Your task to perform on an android device: Open the phone app and click the voicemail tab. Image 0: 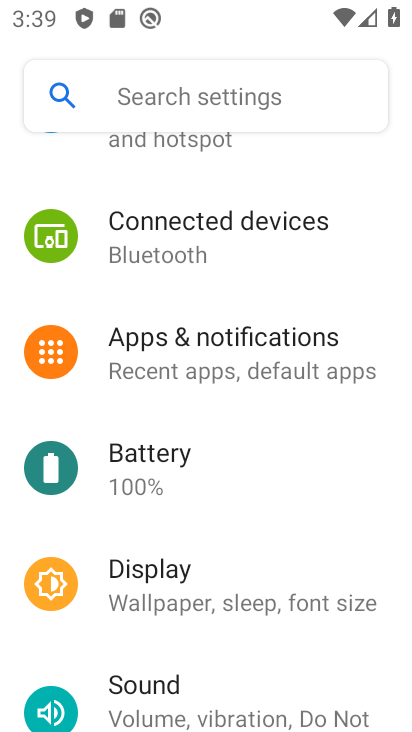
Step 0: press home button
Your task to perform on an android device: Open the phone app and click the voicemail tab. Image 1: 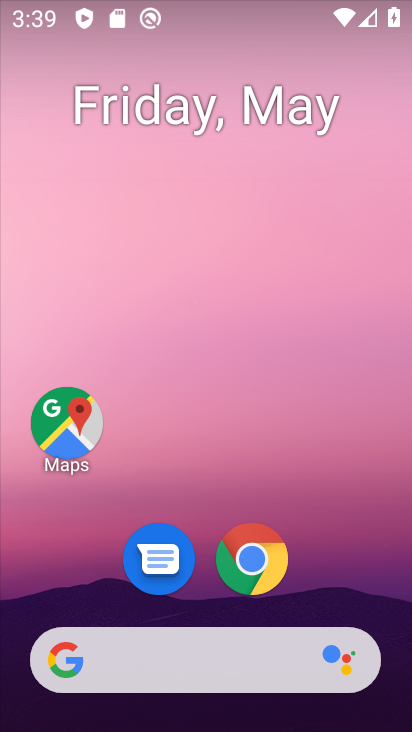
Step 1: drag from (362, 570) to (356, 170)
Your task to perform on an android device: Open the phone app and click the voicemail tab. Image 2: 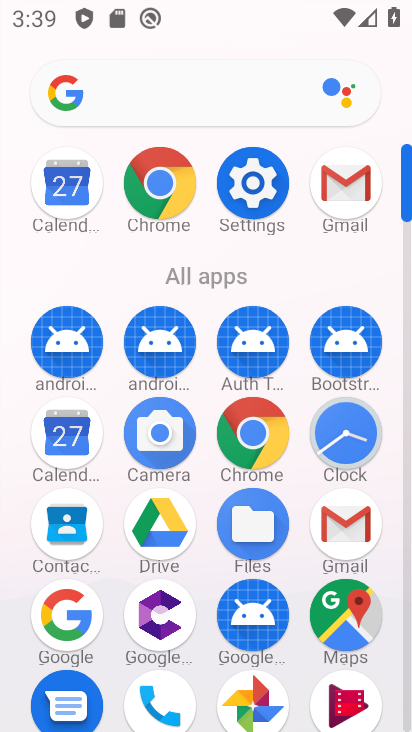
Step 2: click (160, 687)
Your task to perform on an android device: Open the phone app and click the voicemail tab. Image 3: 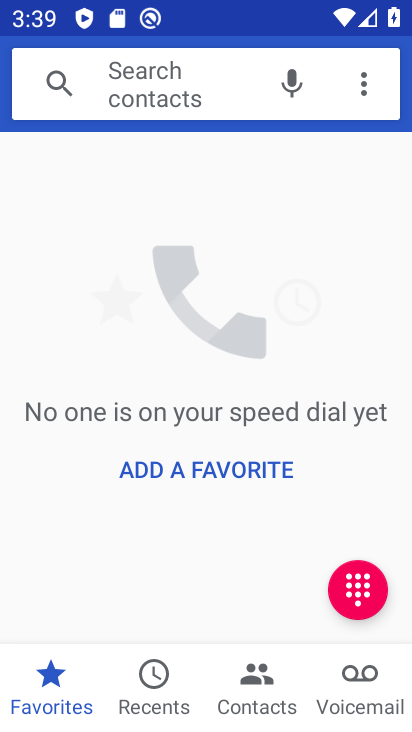
Step 3: click (368, 692)
Your task to perform on an android device: Open the phone app and click the voicemail tab. Image 4: 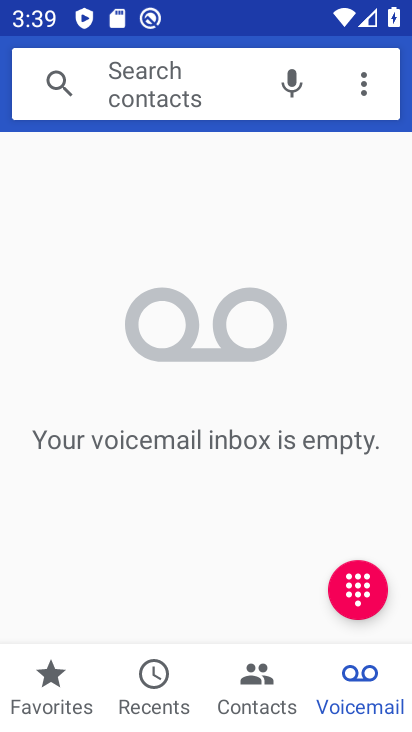
Step 4: task complete